Your task to perform on an android device: Open accessibility settings Image 0: 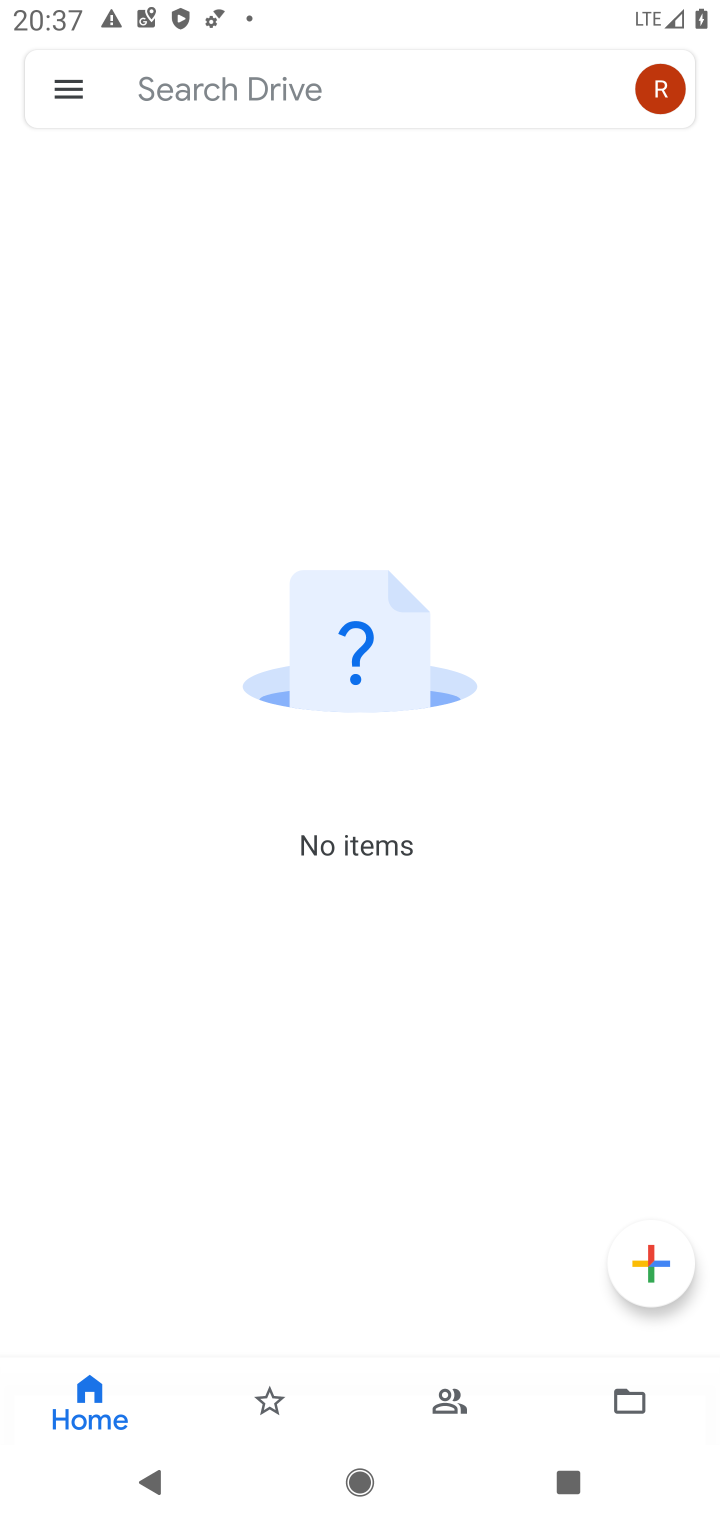
Step 0: press home button
Your task to perform on an android device: Open accessibility settings Image 1: 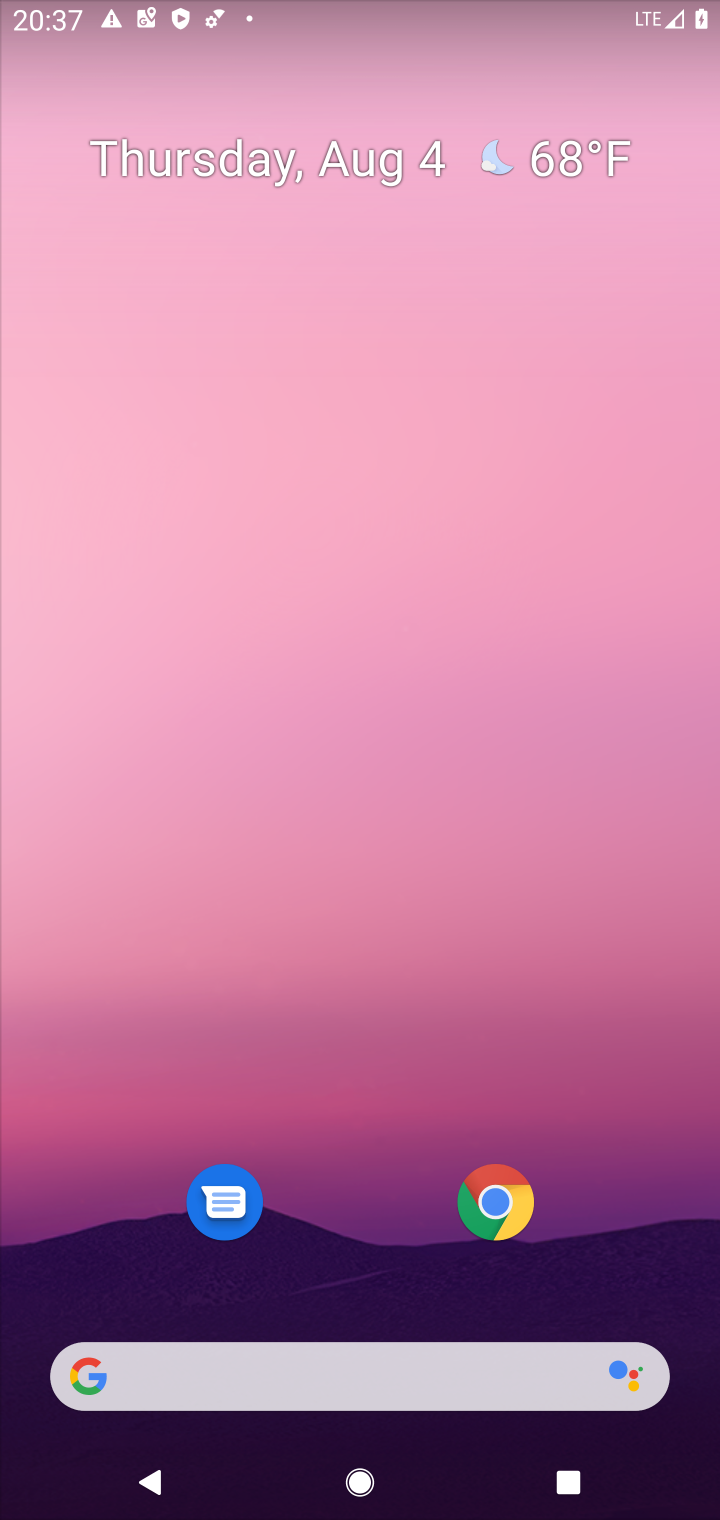
Step 1: drag from (371, 1250) to (388, 437)
Your task to perform on an android device: Open accessibility settings Image 2: 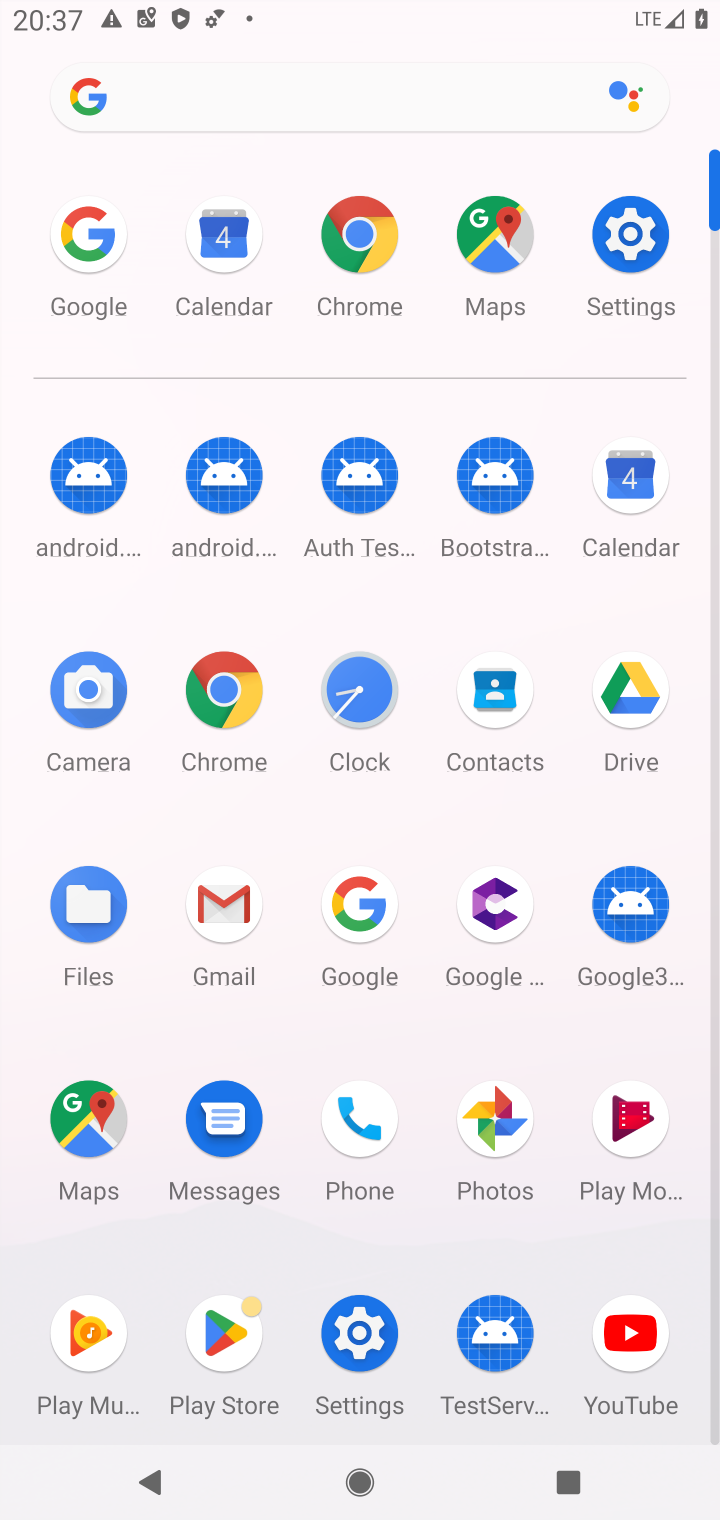
Step 2: click (654, 272)
Your task to perform on an android device: Open accessibility settings Image 3: 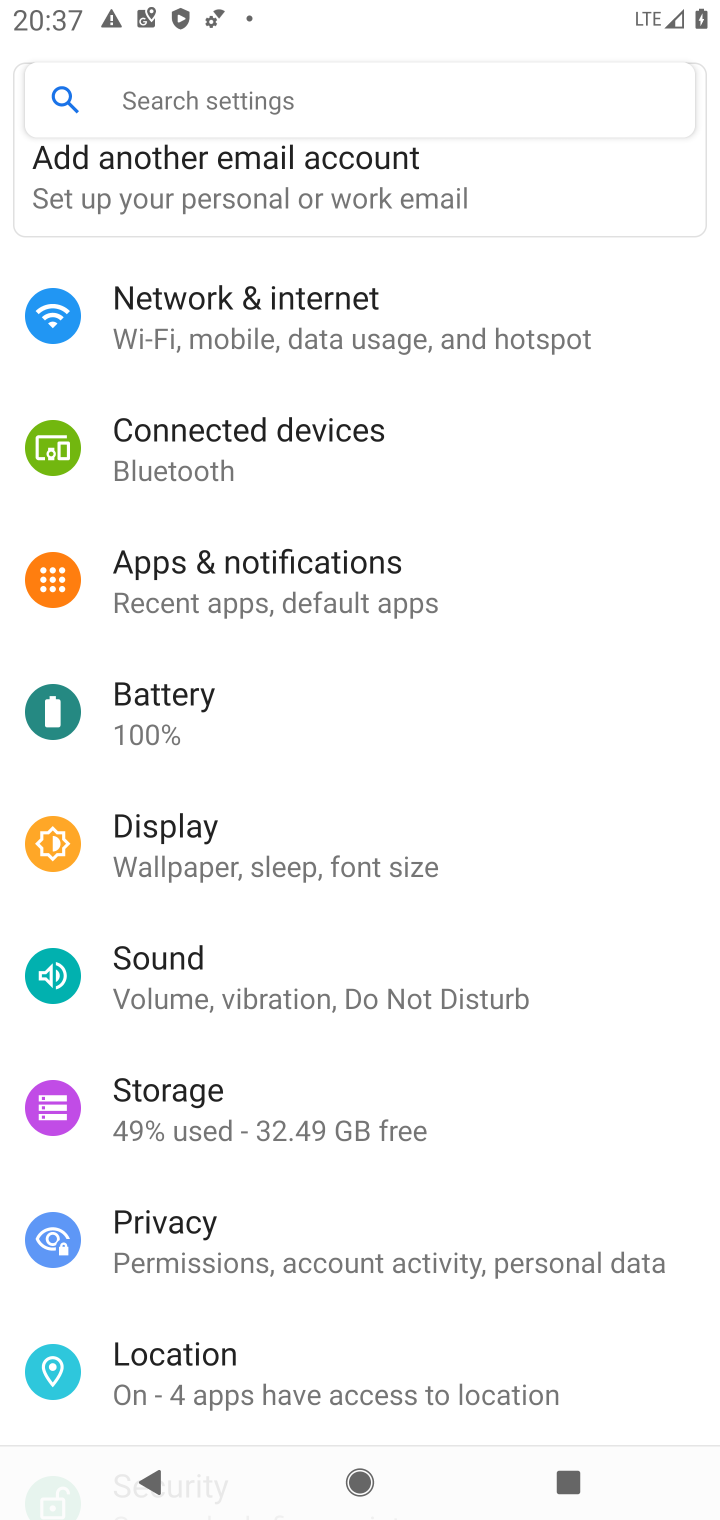
Step 3: drag from (316, 1313) to (437, 561)
Your task to perform on an android device: Open accessibility settings Image 4: 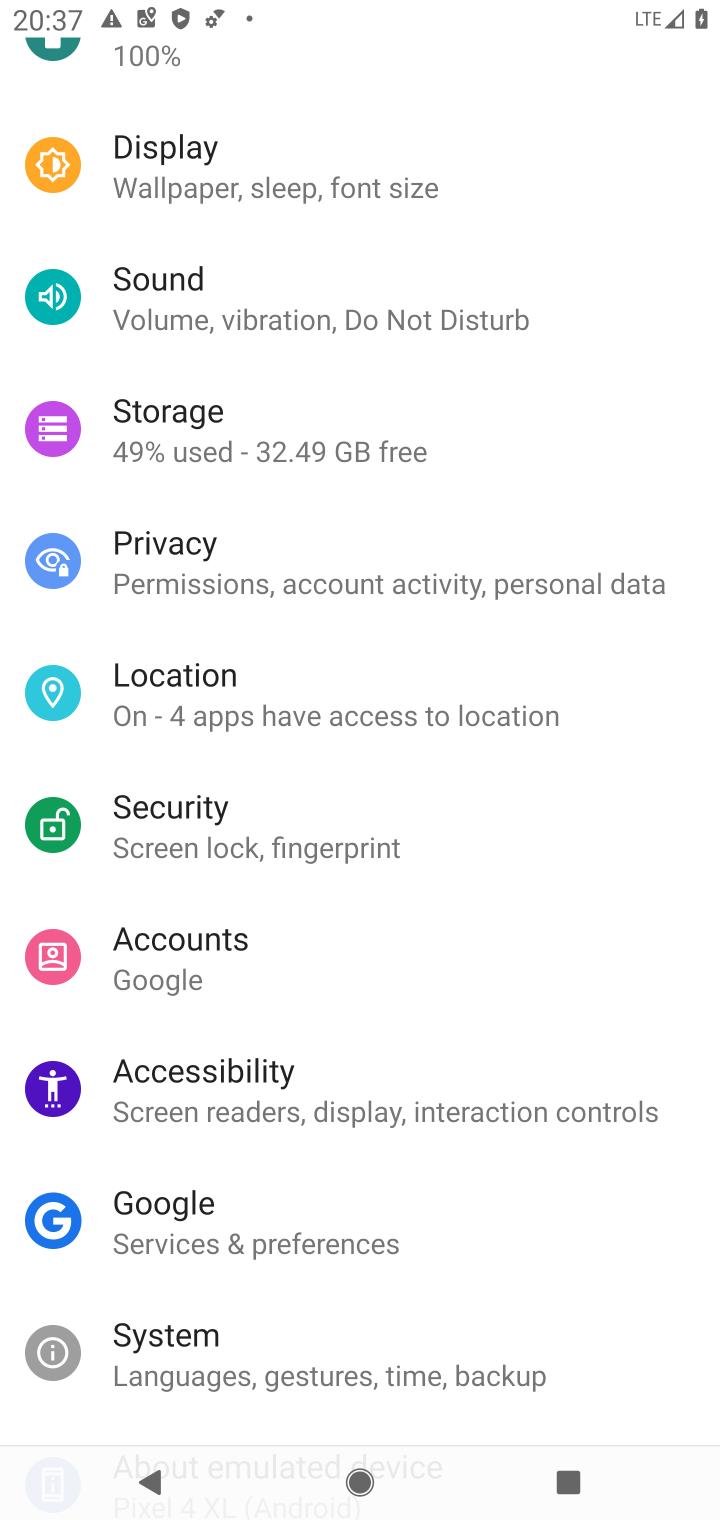
Step 4: click (224, 1125)
Your task to perform on an android device: Open accessibility settings Image 5: 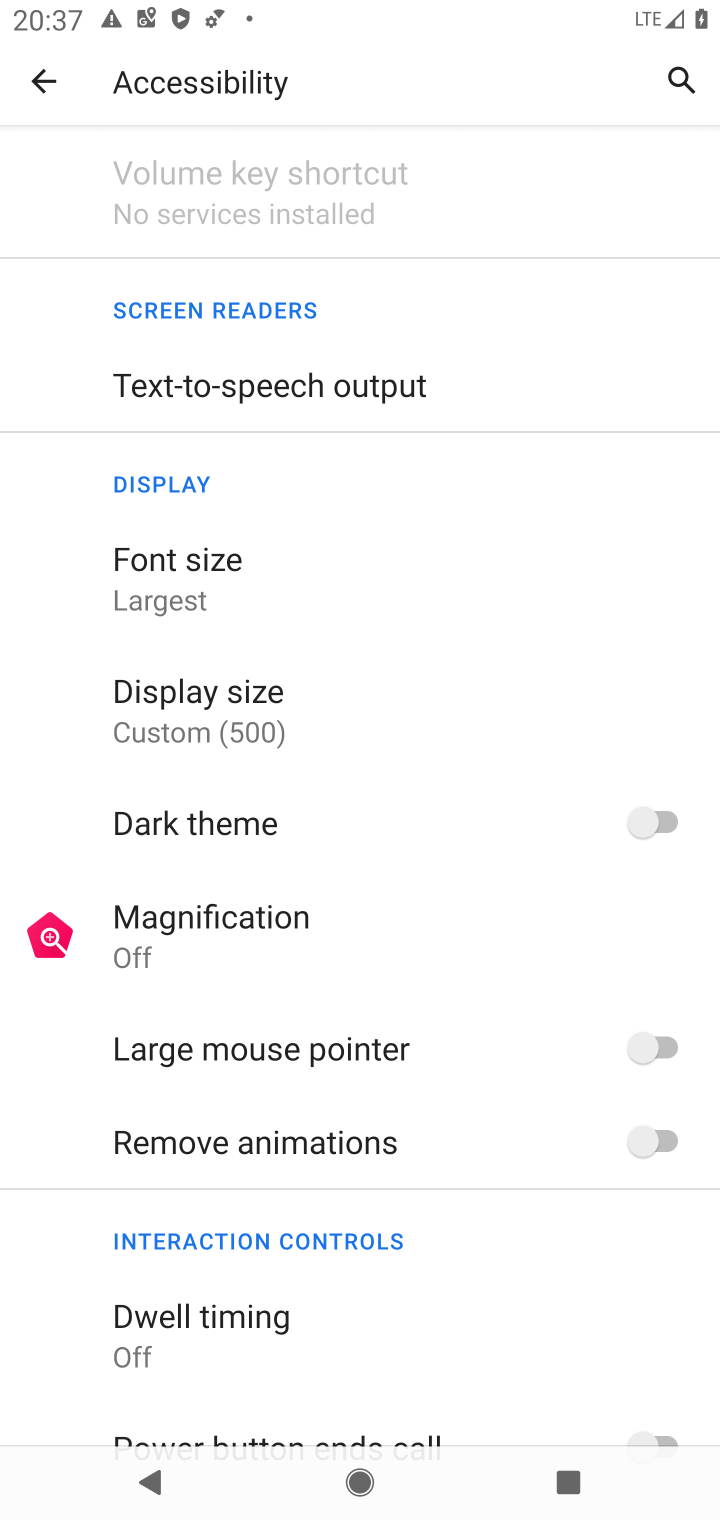
Step 5: task complete